Your task to perform on an android device: toggle data saver in the chrome app Image 0: 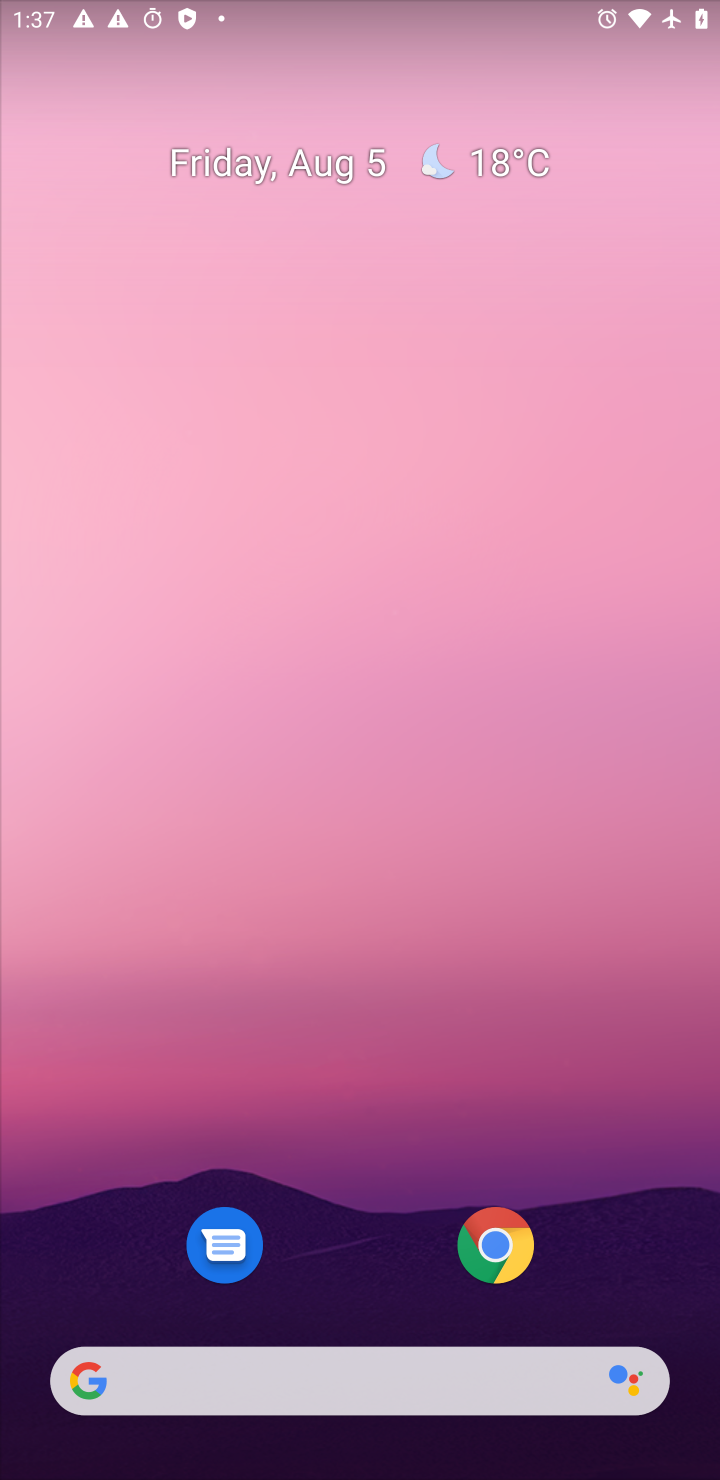
Step 0: press home button
Your task to perform on an android device: toggle data saver in the chrome app Image 1: 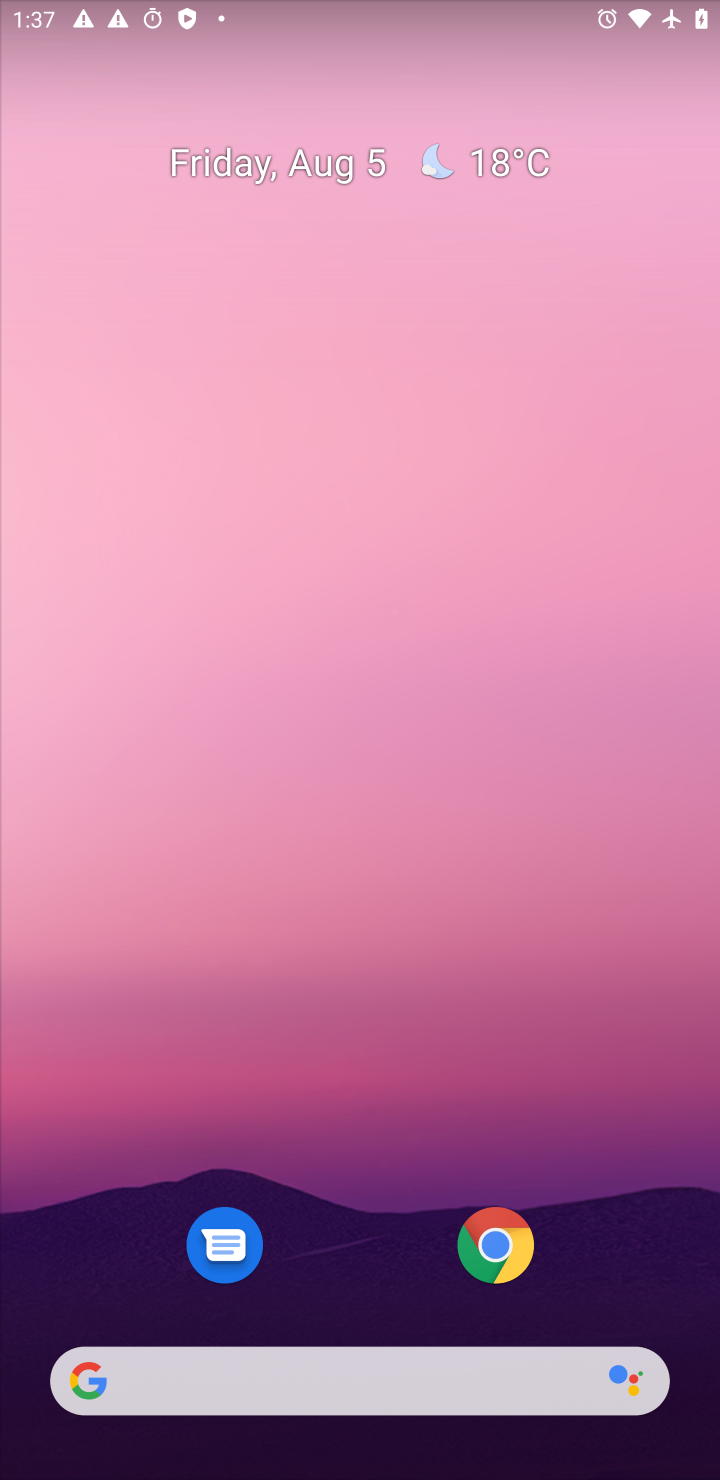
Step 1: drag from (334, 1291) to (371, 221)
Your task to perform on an android device: toggle data saver in the chrome app Image 2: 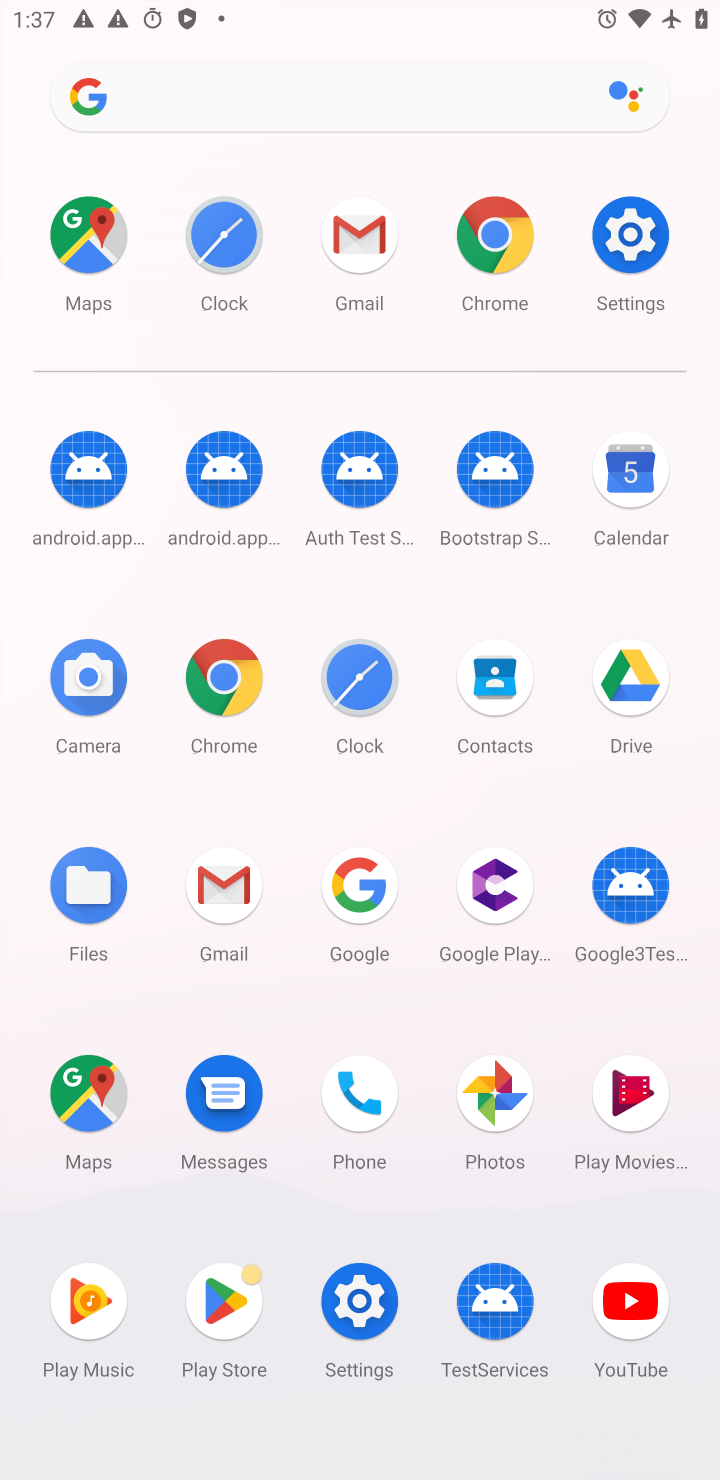
Step 2: click (489, 252)
Your task to perform on an android device: toggle data saver in the chrome app Image 3: 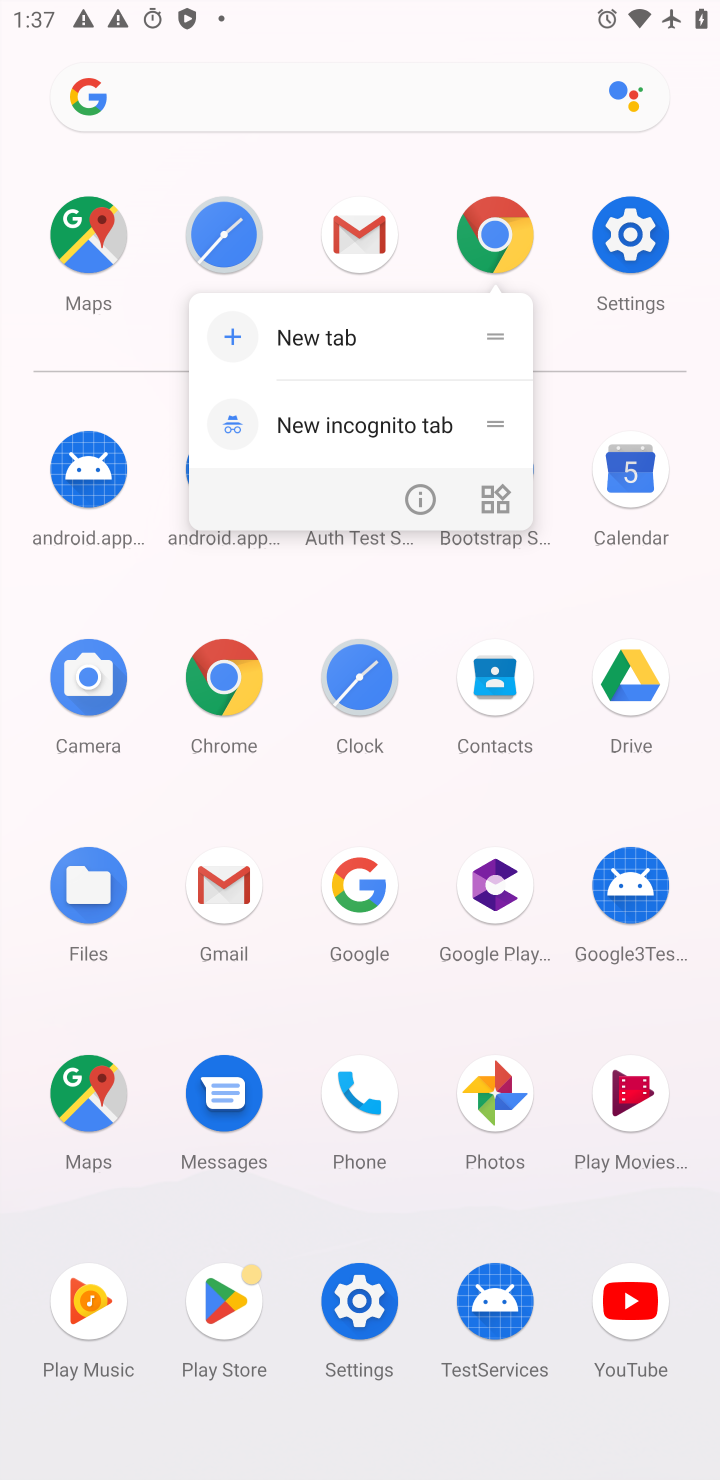
Step 3: click (489, 252)
Your task to perform on an android device: toggle data saver in the chrome app Image 4: 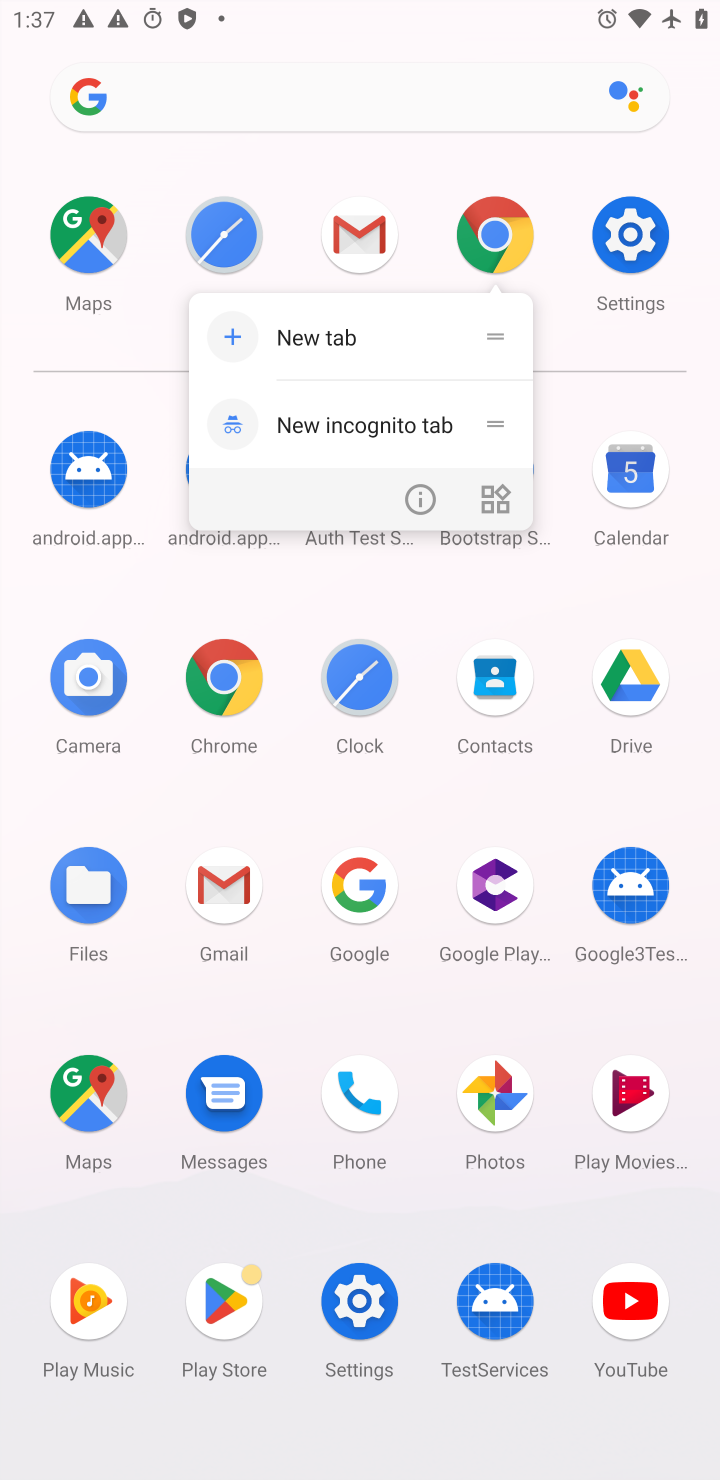
Step 4: click (489, 252)
Your task to perform on an android device: toggle data saver in the chrome app Image 5: 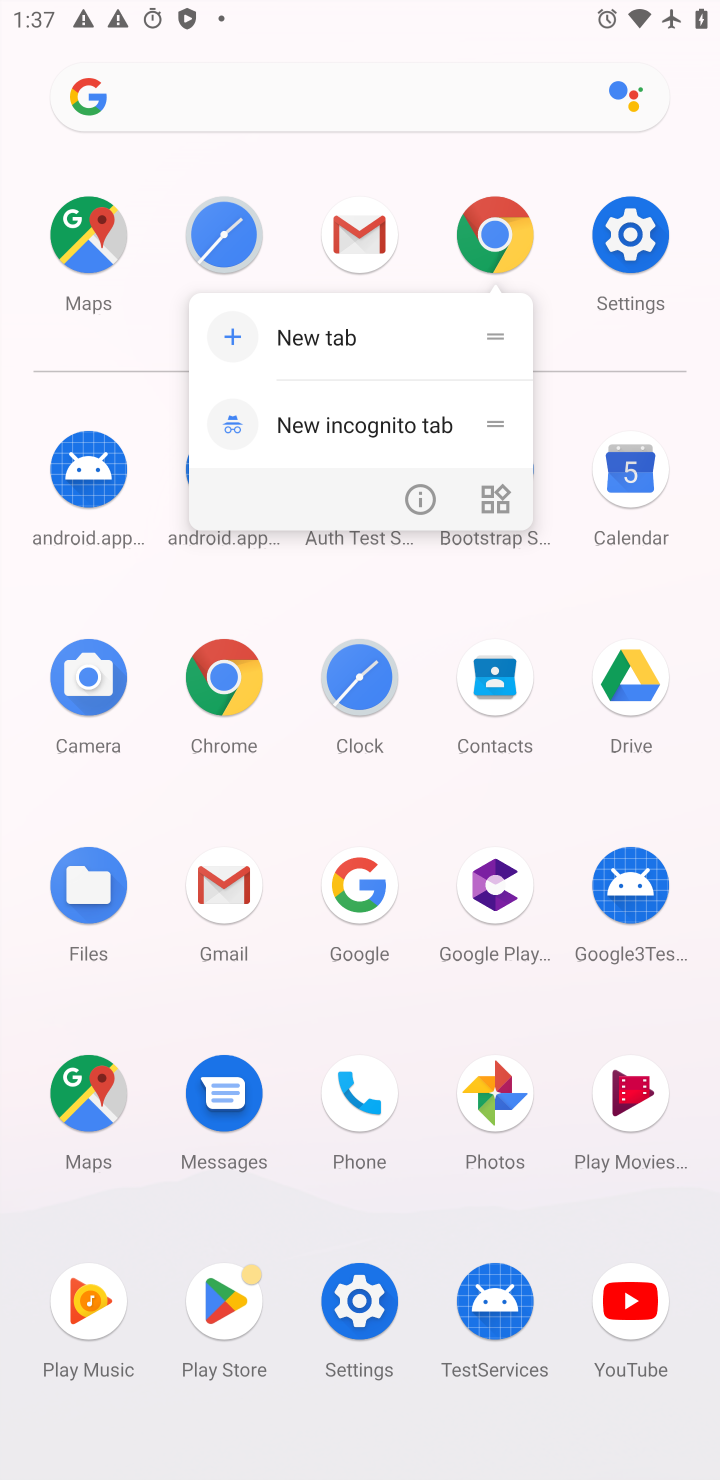
Step 5: click (510, 239)
Your task to perform on an android device: toggle data saver in the chrome app Image 6: 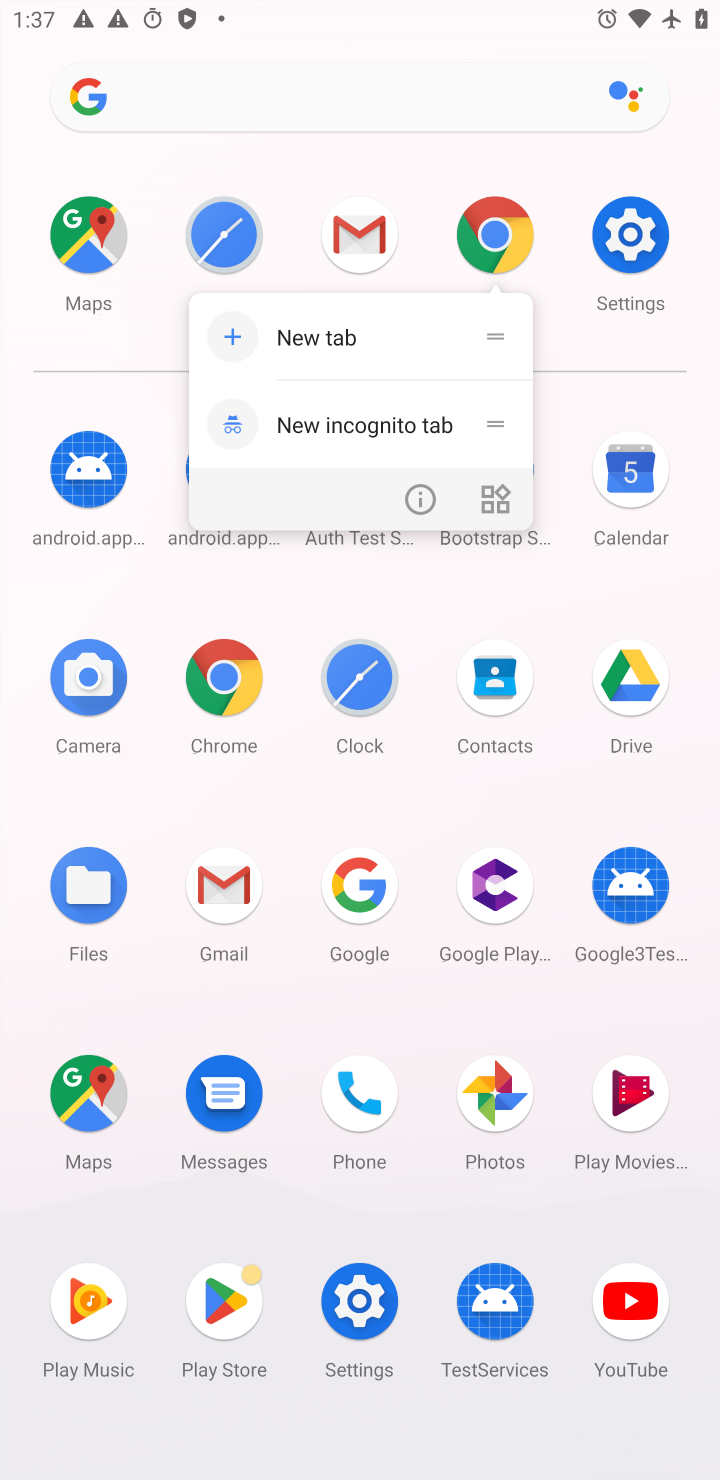
Step 6: click (510, 239)
Your task to perform on an android device: toggle data saver in the chrome app Image 7: 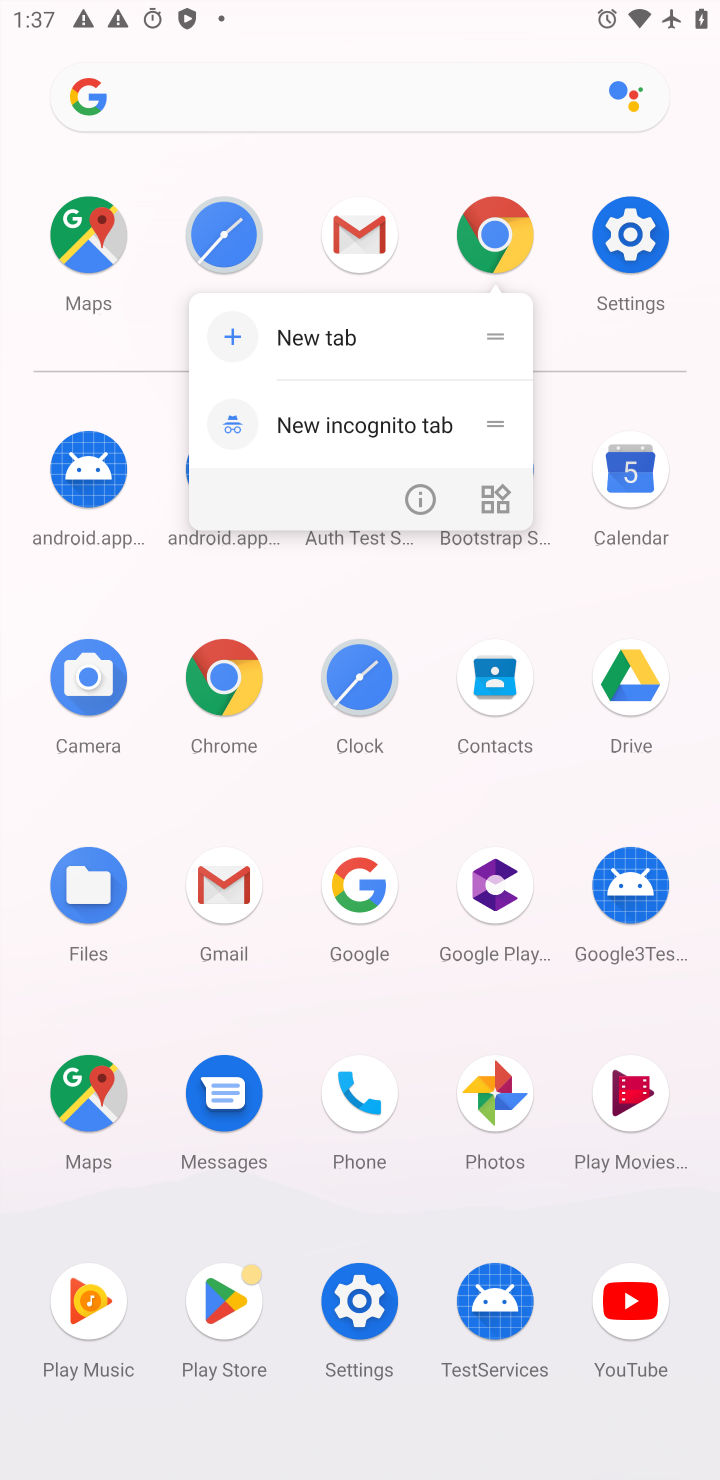
Step 7: click (492, 255)
Your task to perform on an android device: toggle data saver in the chrome app Image 8: 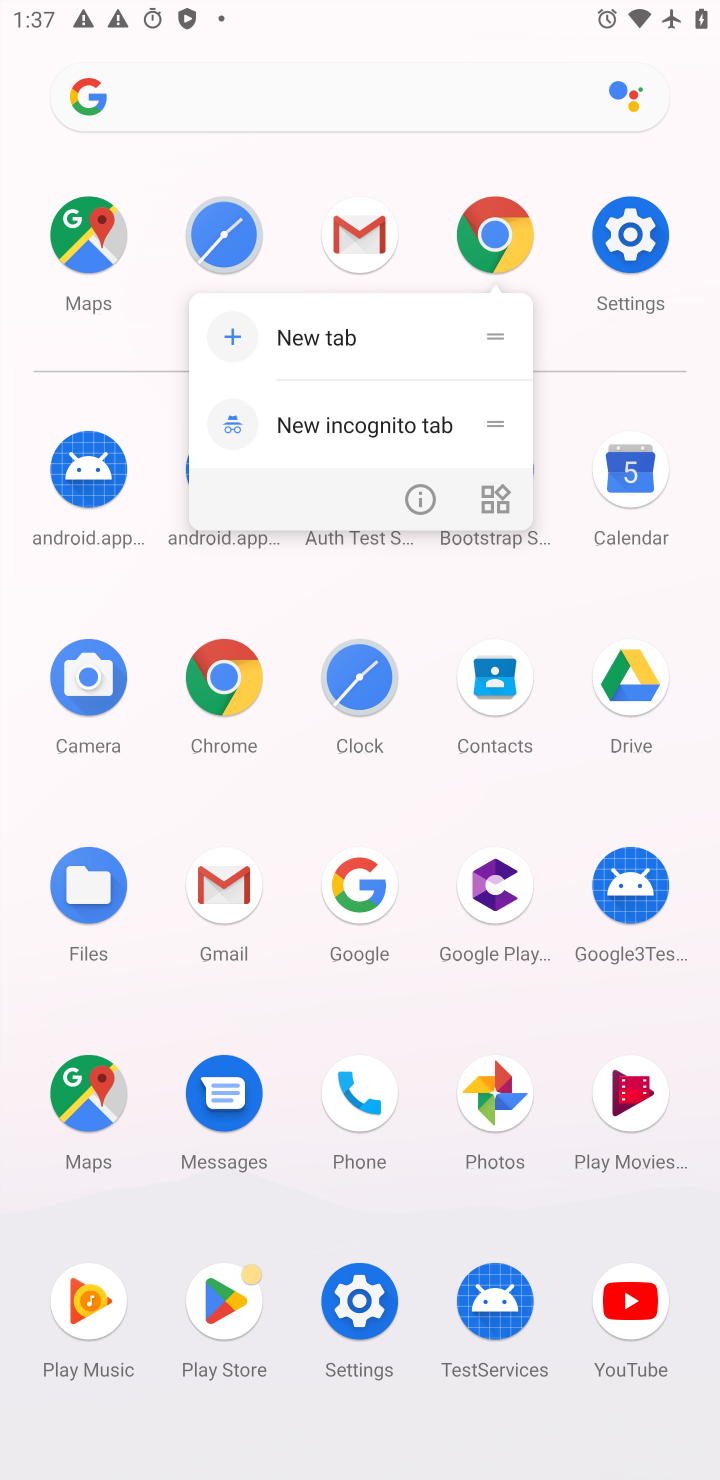
Step 8: click (506, 231)
Your task to perform on an android device: toggle data saver in the chrome app Image 9: 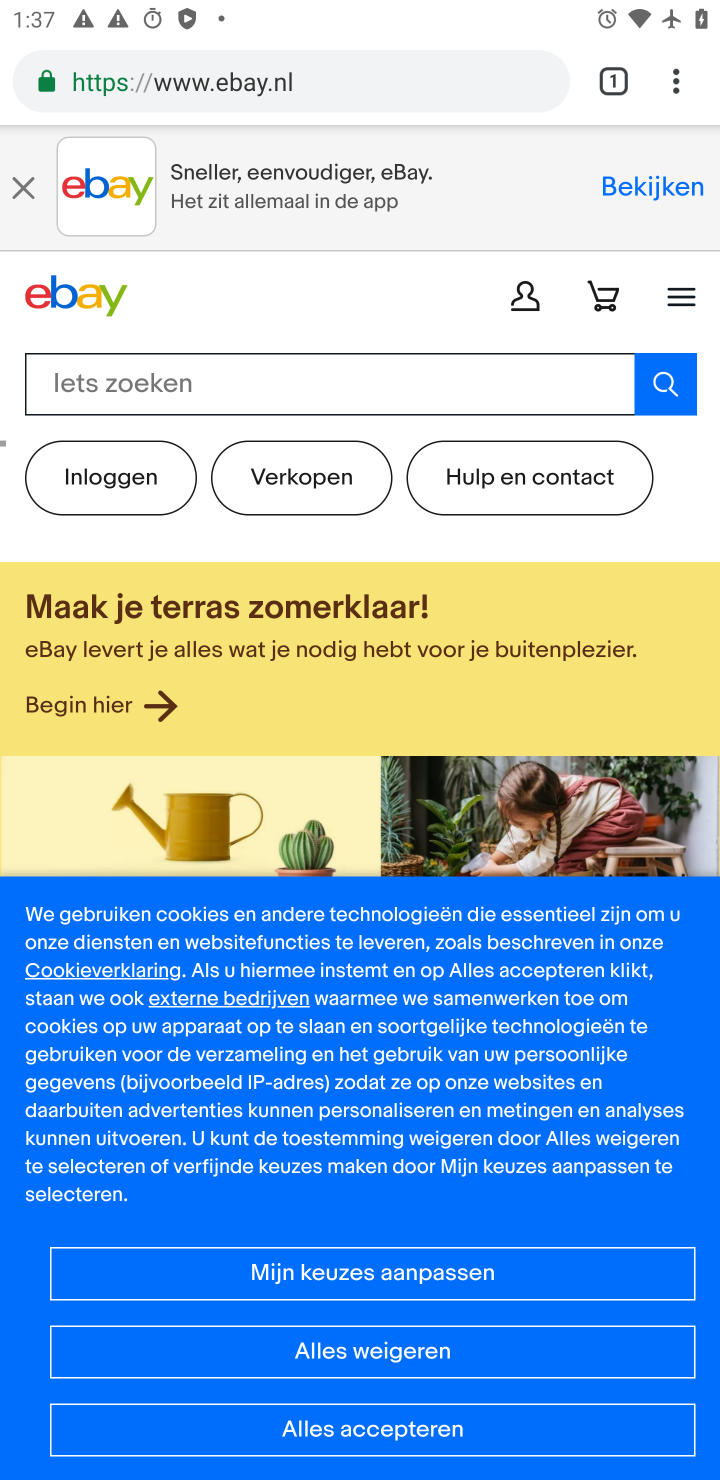
Step 9: drag from (683, 70) to (398, 1087)
Your task to perform on an android device: toggle data saver in the chrome app Image 10: 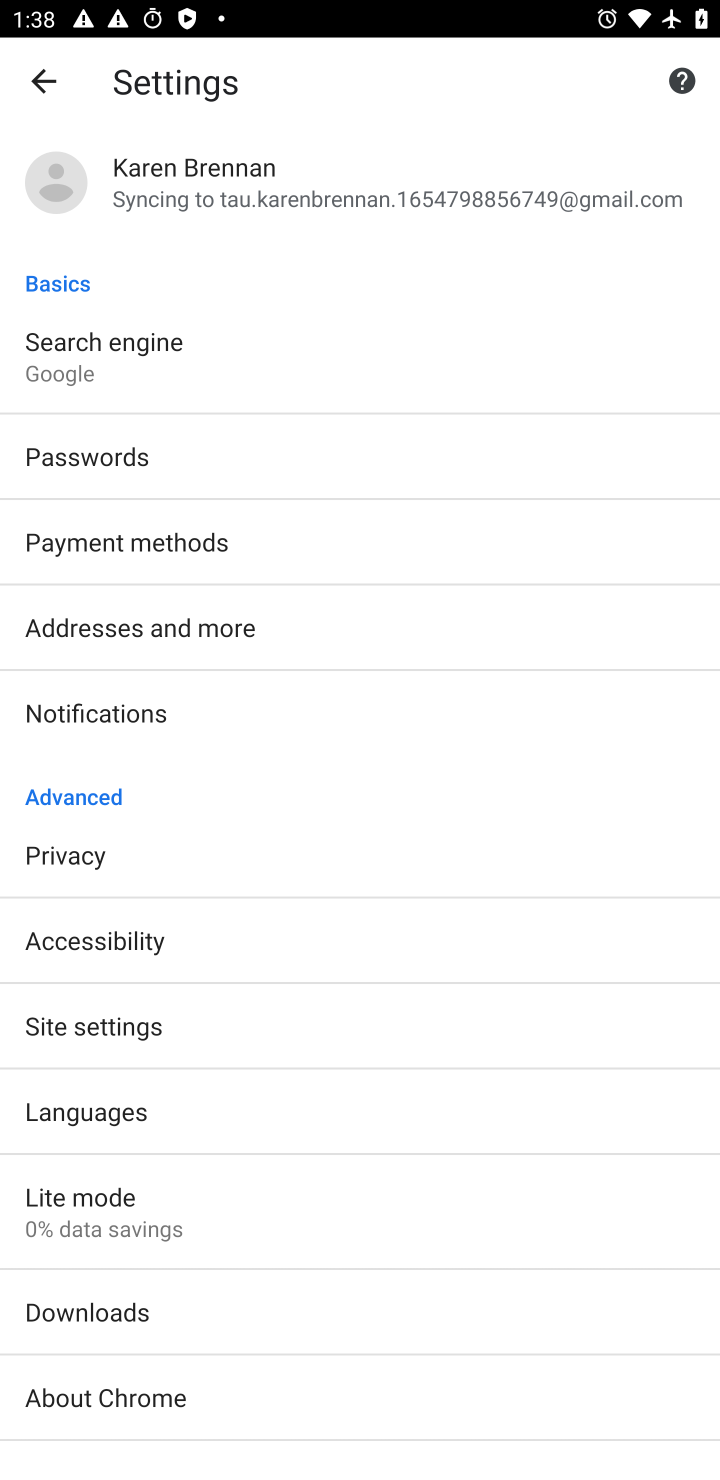
Step 10: click (76, 1210)
Your task to perform on an android device: toggle data saver in the chrome app Image 11: 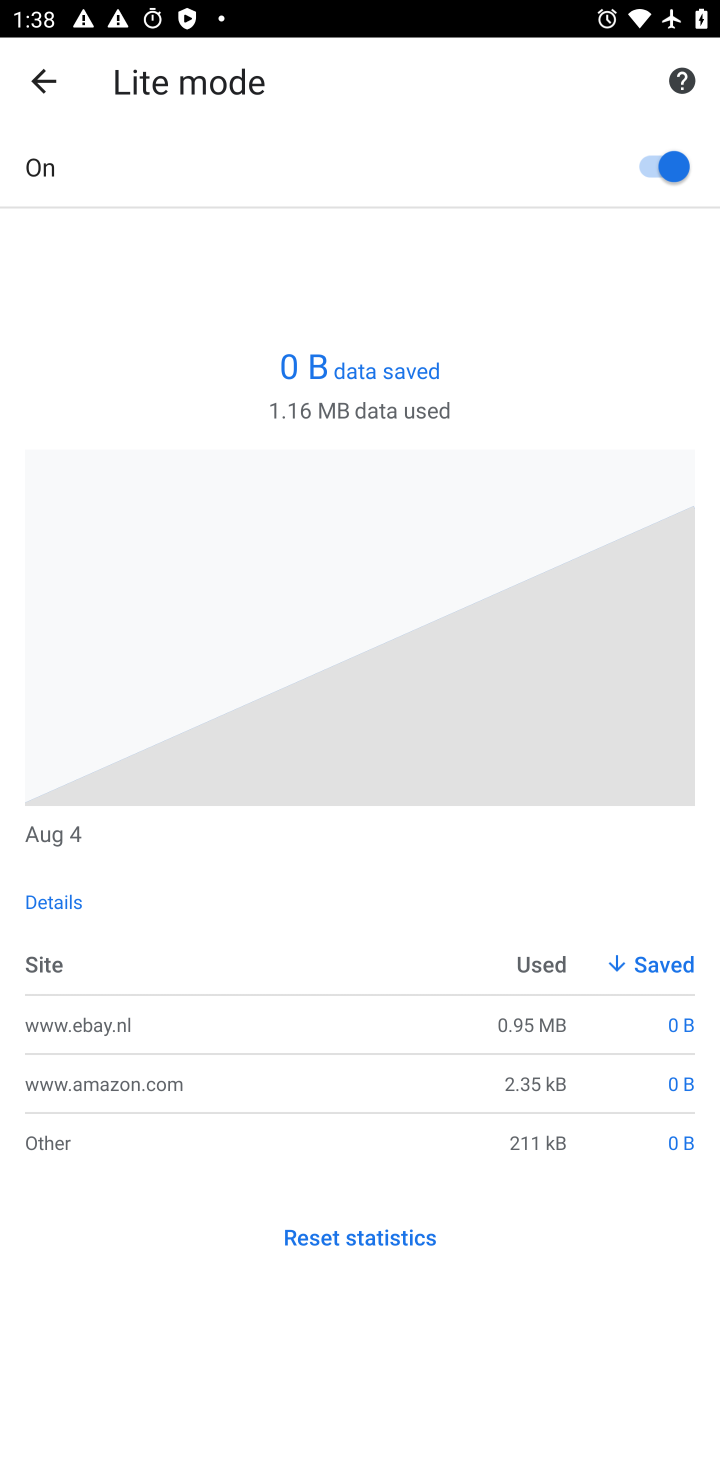
Step 11: click (674, 162)
Your task to perform on an android device: toggle data saver in the chrome app Image 12: 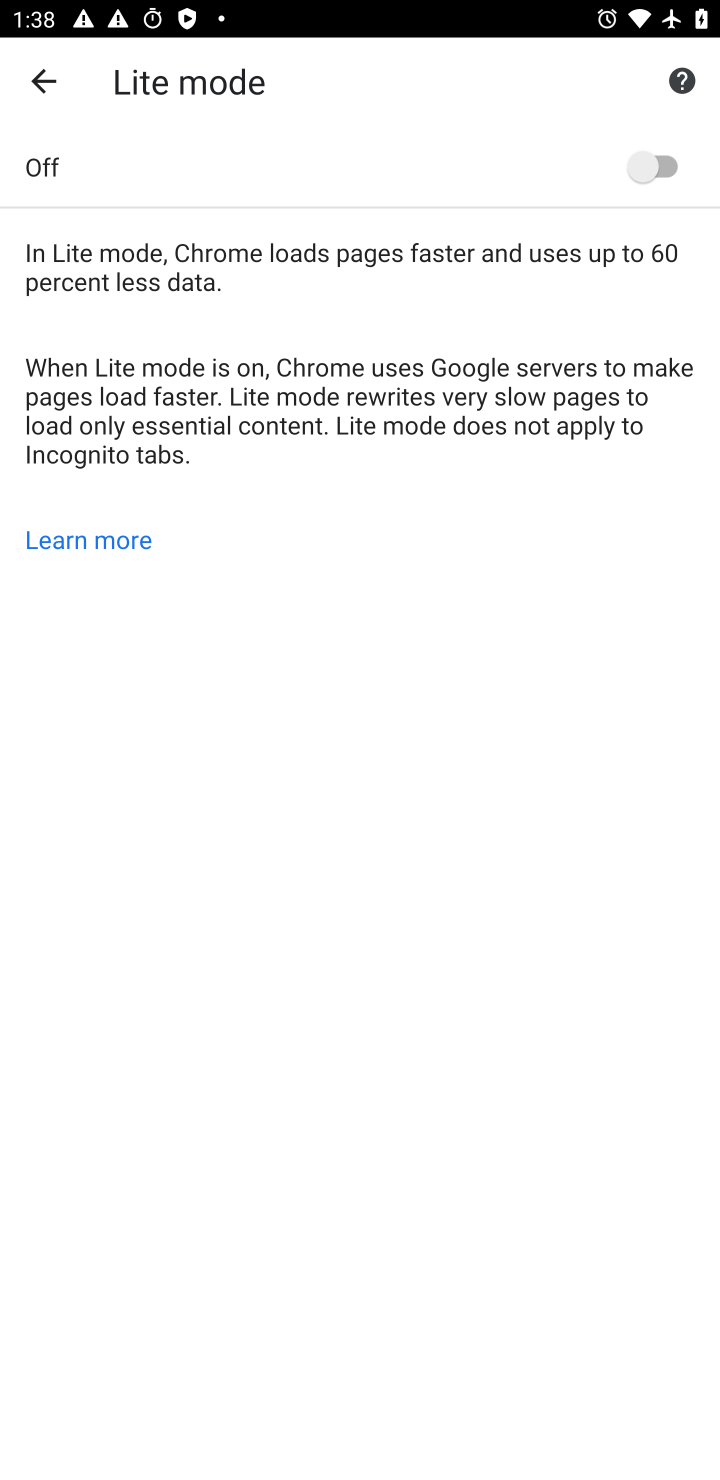
Step 12: task complete